Your task to perform on an android device: Search for seafood restaurants on Google Maps Image 0: 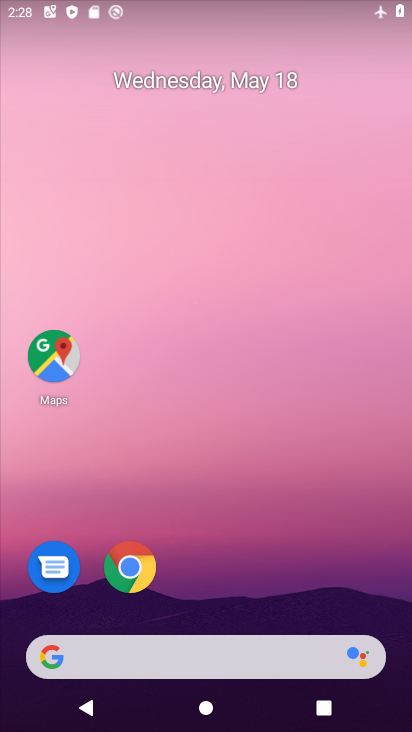
Step 0: drag from (266, 578) to (291, 266)
Your task to perform on an android device: Search for seafood restaurants on Google Maps Image 1: 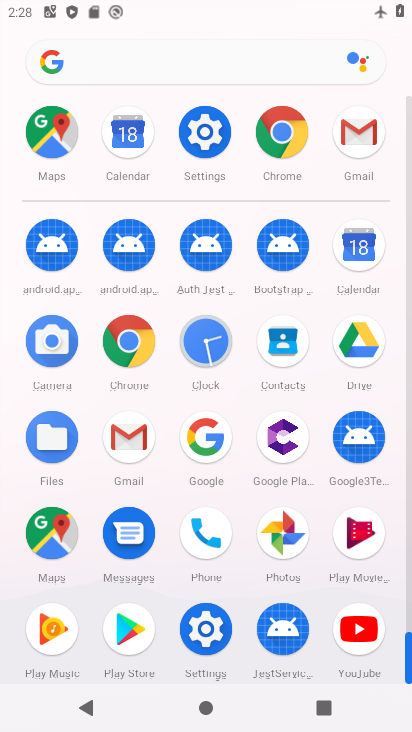
Step 1: click (27, 522)
Your task to perform on an android device: Search for seafood restaurants on Google Maps Image 2: 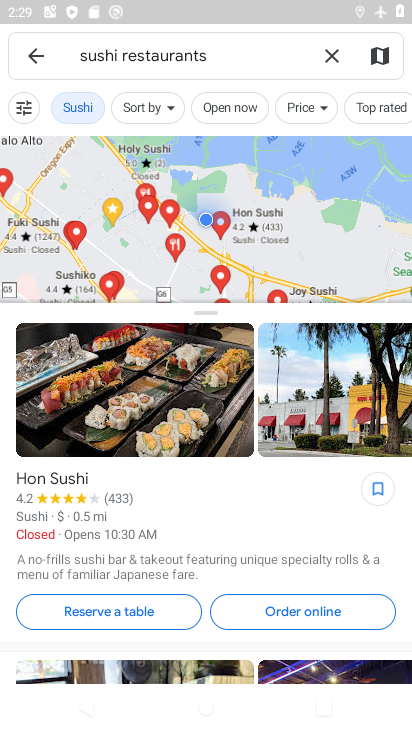
Step 2: click (338, 55)
Your task to perform on an android device: Search for seafood restaurants on Google Maps Image 3: 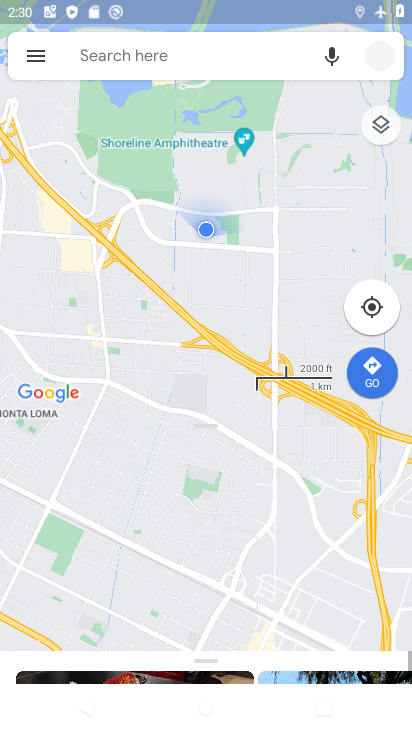
Step 3: click (333, 54)
Your task to perform on an android device: Search for seafood restaurants on Google Maps Image 4: 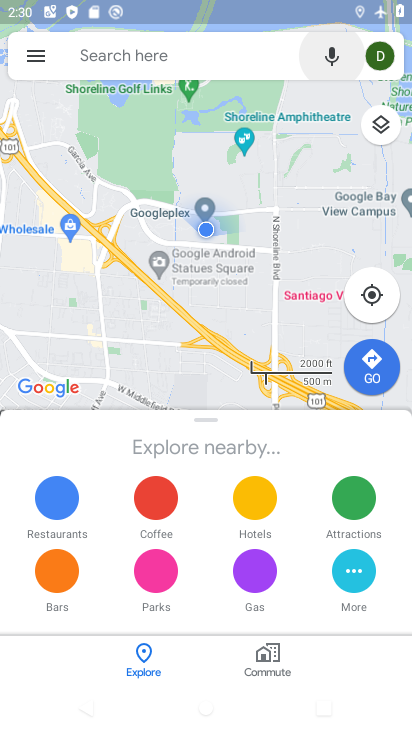
Step 4: click (181, 48)
Your task to perform on an android device: Search for seafood restaurants on Google Maps Image 5: 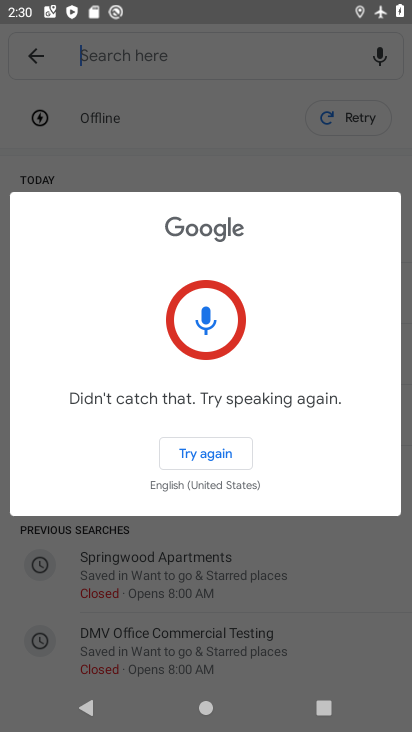
Step 5: click (219, 460)
Your task to perform on an android device: Search for seafood restaurants on Google Maps Image 6: 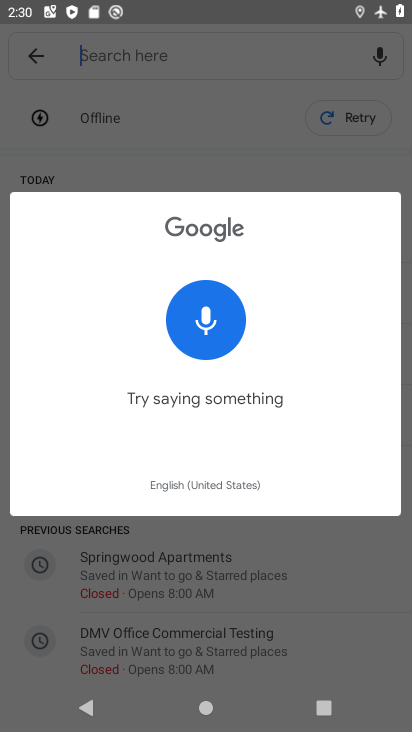
Step 6: click (201, 45)
Your task to perform on an android device: Search for seafood restaurants on Google Maps Image 7: 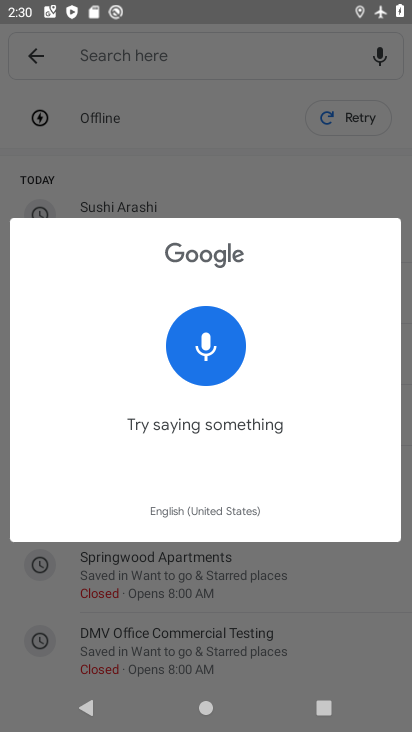
Step 7: click (201, 45)
Your task to perform on an android device: Search for seafood restaurants on Google Maps Image 8: 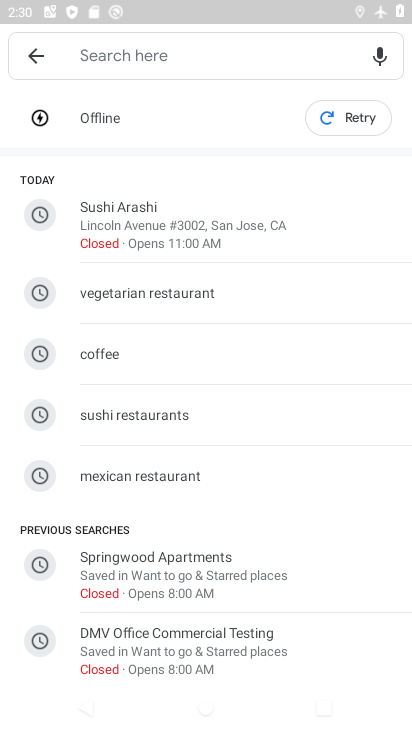
Step 8: click (201, 45)
Your task to perform on an android device: Search for seafood restaurants on Google Maps Image 9: 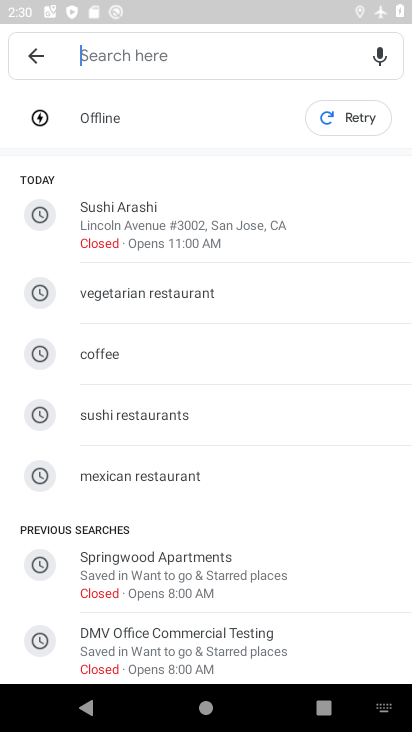
Step 9: type "r seafood restaurants"
Your task to perform on an android device: Search for seafood restaurants on Google Maps Image 10: 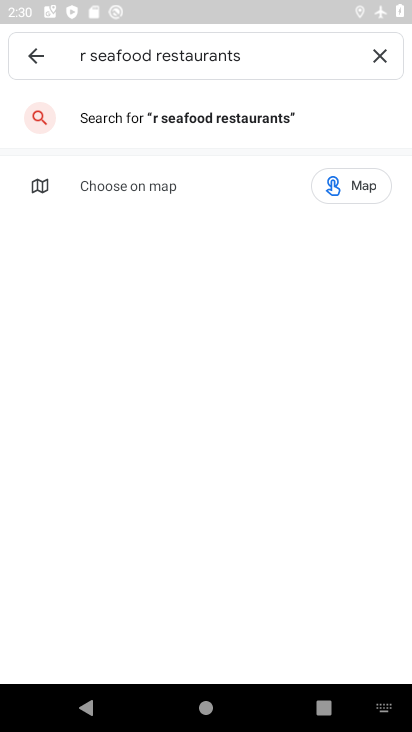
Step 10: click (199, 119)
Your task to perform on an android device: Search for seafood restaurants on Google Maps Image 11: 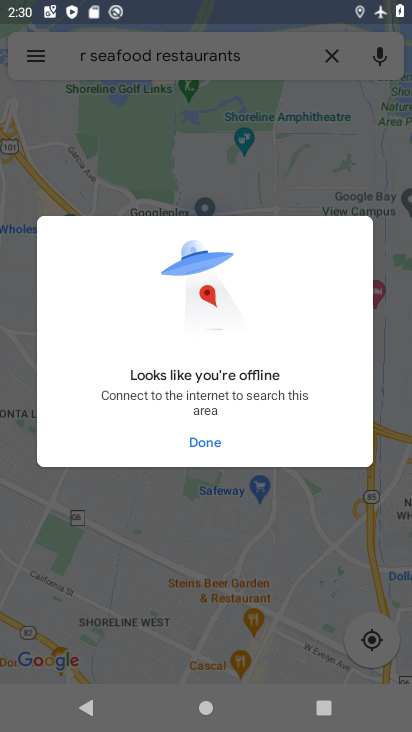
Step 11: task complete